Your task to perform on an android device: turn on sleep mode Image 0: 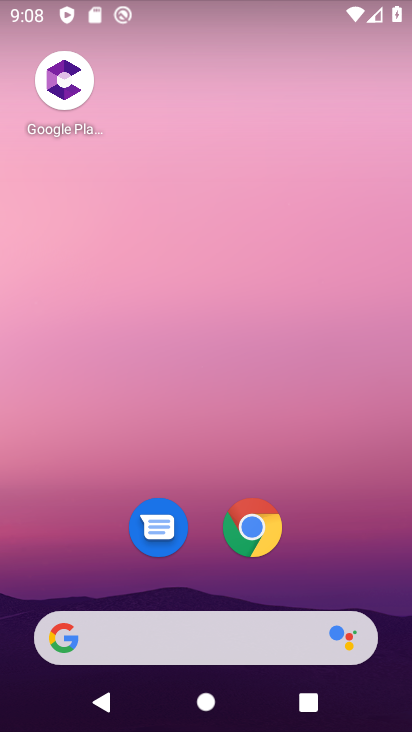
Step 0: drag from (387, 640) to (342, 251)
Your task to perform on an android device: turn on sleep mode Image 1: 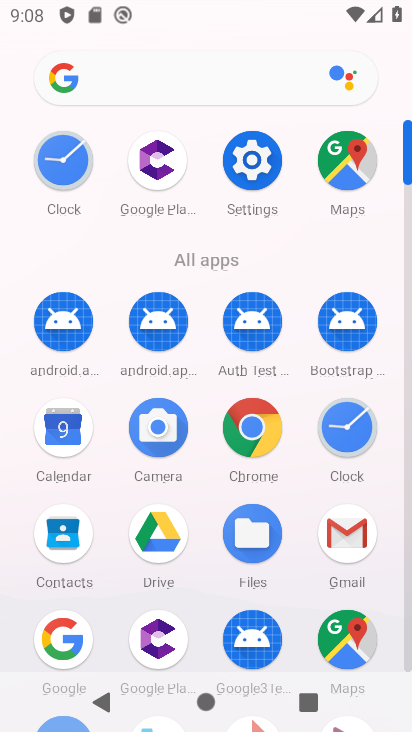
Step 1: click (407, 654)
Your task to perform on an android device: turn on sleep mode Image 2: 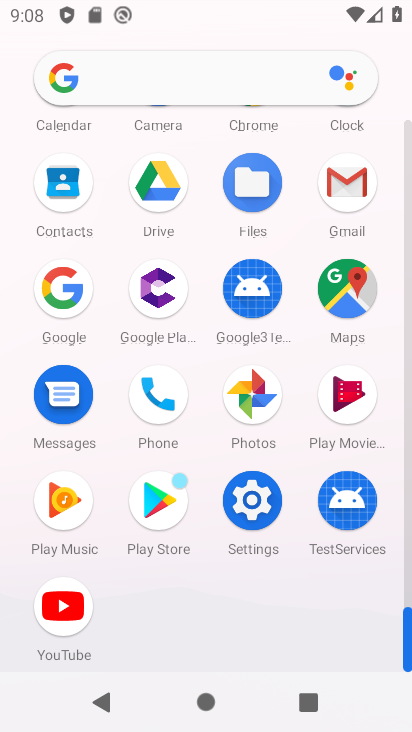
Step 2: click (253, 506)
Your task to perform on an android device: turn on sleep mode Image 3: 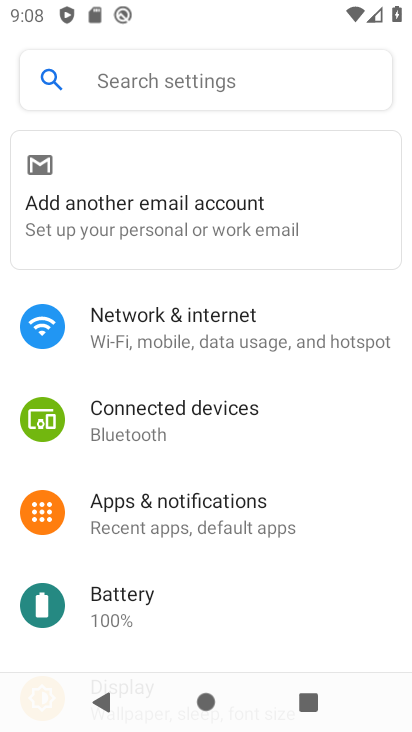
Step 3: drag from (270, 603) to (269, 130)
Your task to perform on an android device: turn on sleep mode Image 4: 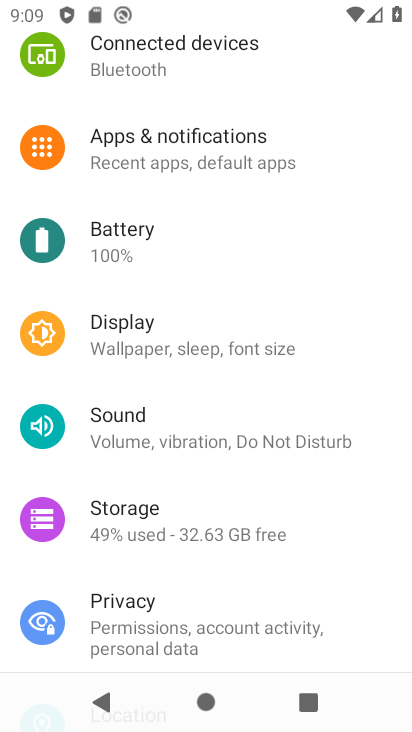
Step 4: drag from (210, 613) to (185, 332)
Your task to perform on an android device: turn on sleep mode Image 5: 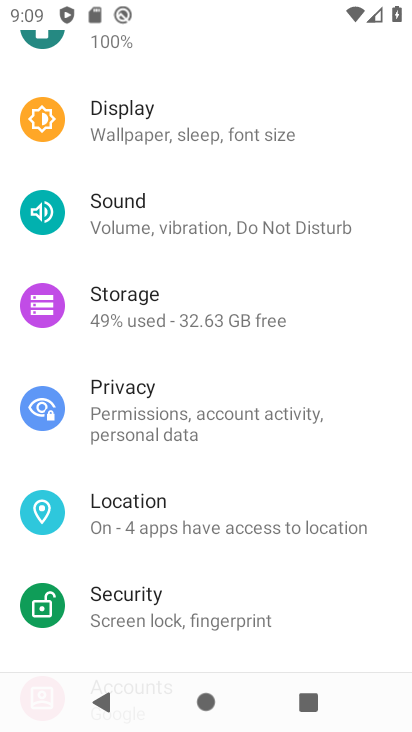
Step 5: click (148, 120)
Your task to perform on an android device: turn on sleep mode Image 6: 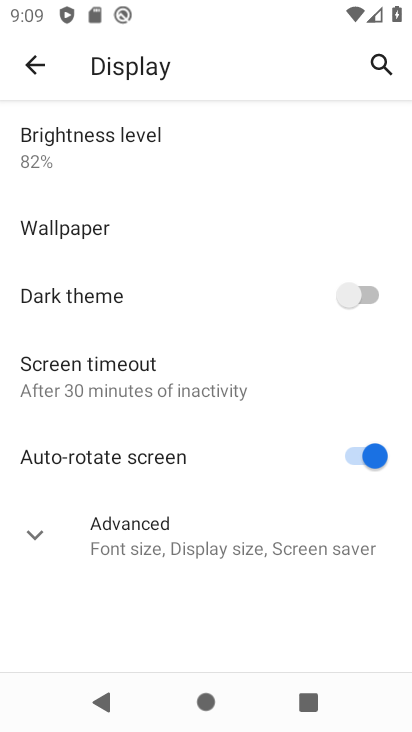
Step 6: click (65, 514)
Your task to perform on an android device: turn on sleep mode Image 7: 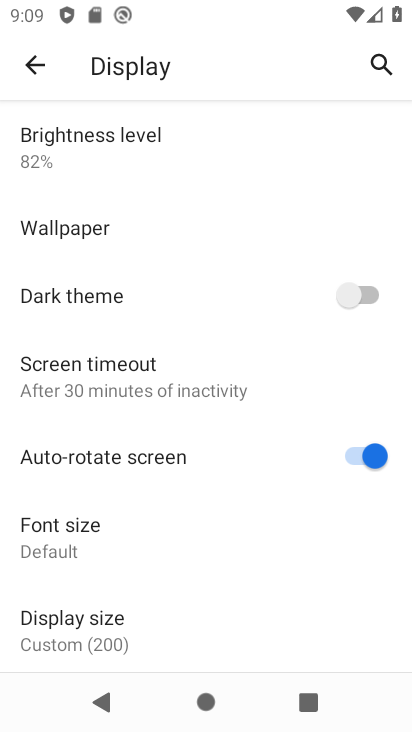
Step 7: task complete